Your task to perform on an android device: Open Youtube and go to "Your channel" Image 0: 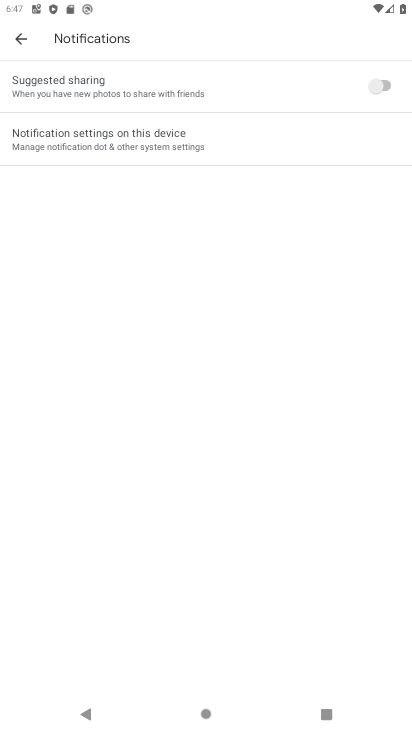
Step 0: press home button
Your task to perform on an android device: Open Youtube and go to "Your channel" Image 1: 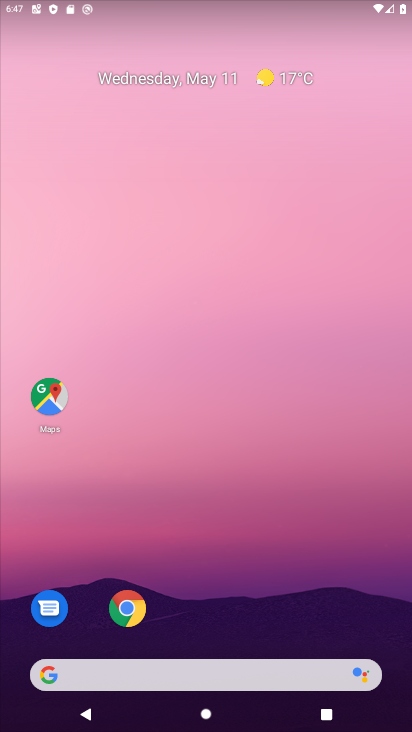
Step 1: drag from (284, 633) to (296, 32)
Your task to perform on an android device: Open Youtube and go to "Your channel" Image 2: 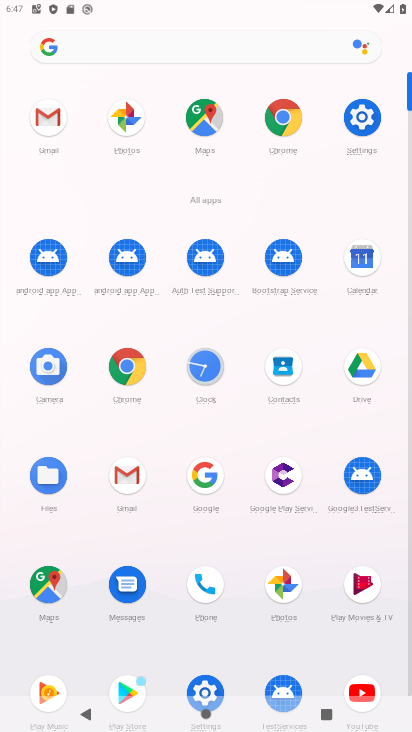
Step 2: click (363, 678)
Your task to perform on an android device: Open Youtube and go to "Your channel" Image 3: 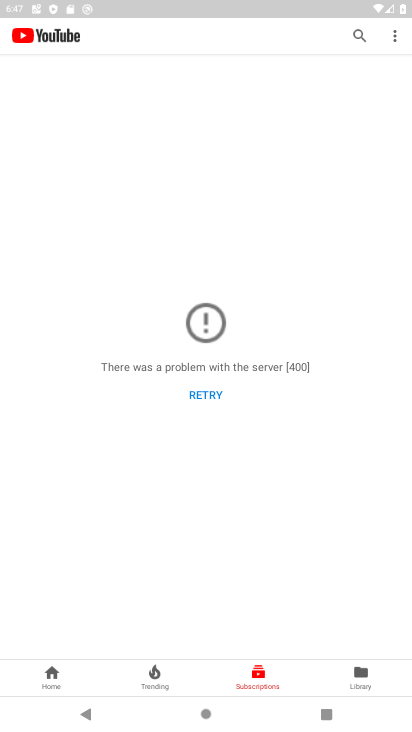
Step 3: click (357, 676)
Your task to perform on an android device: Open Youtube and go to "Your channel" Image 4: 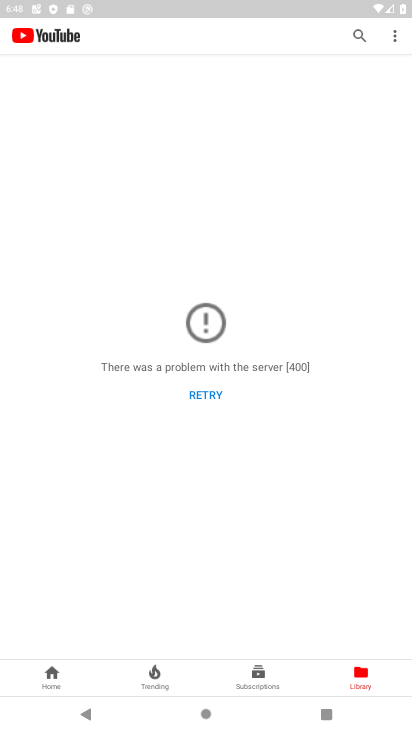
Step 4: click (203, 390)
Your task to perform on an android device: Open Youtube and go to "Your channel" Image 5: 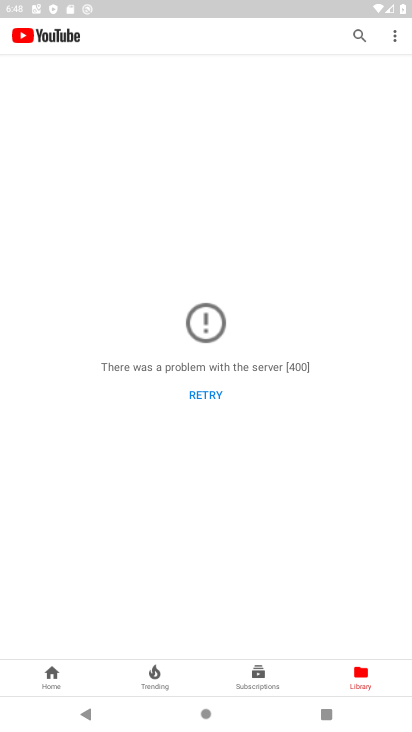
Step 5: click (203, 390)
Your task to perform on an android device: Open Youtube and go to "Your channel" Image 6: 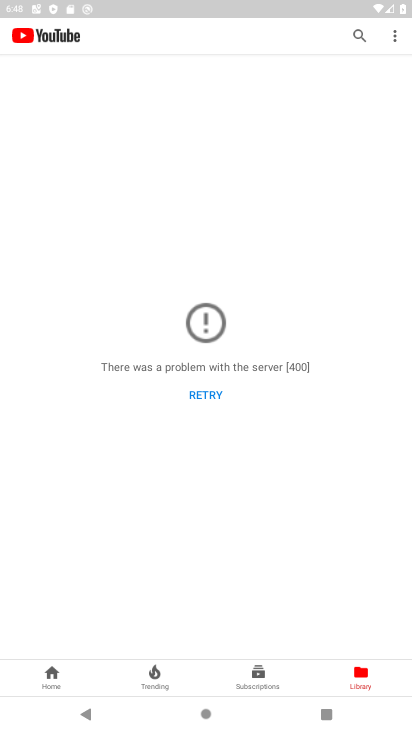
Step 6: task complete